Your task to perform on an android device: set default search engine in the chrome app Image 0: 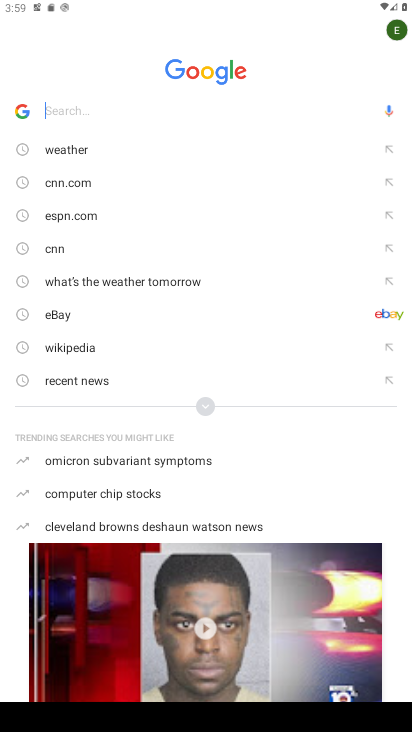
Step 0: press home button
Your task to perform on an android device: set default search engine in the chrome app Image 1: 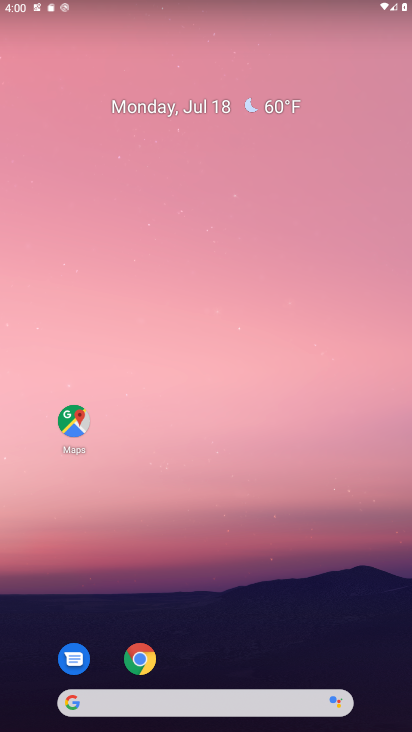
Step 1: drag from (327, 711) to (354, 200)
Your task to perform on an android device: set default search engine in the chrome app Image 2: 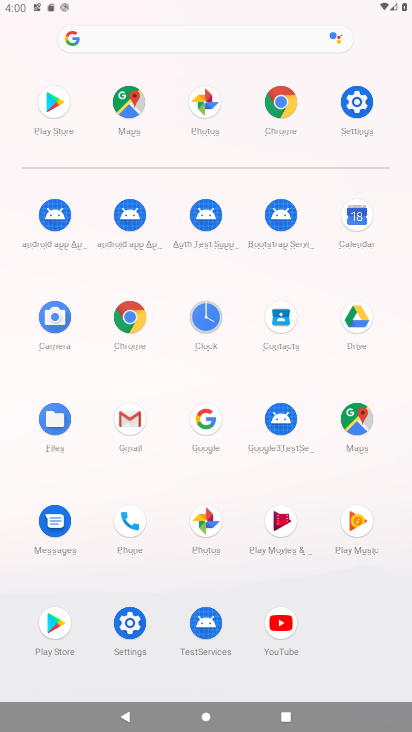
Step 2: click (125, 319)
Your task to perform on an android device: set default search engine in the chrome app Image 3: 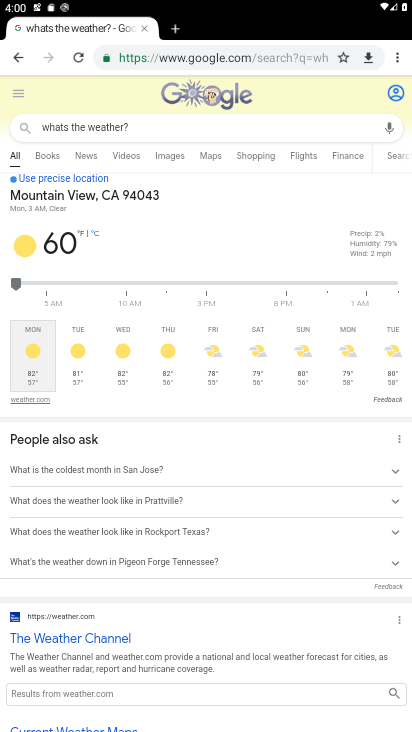
Step 3: drag from (392, 55) to (329, 346)
Your task to perform on an android device: set default search engine in the chrome app Image 4: 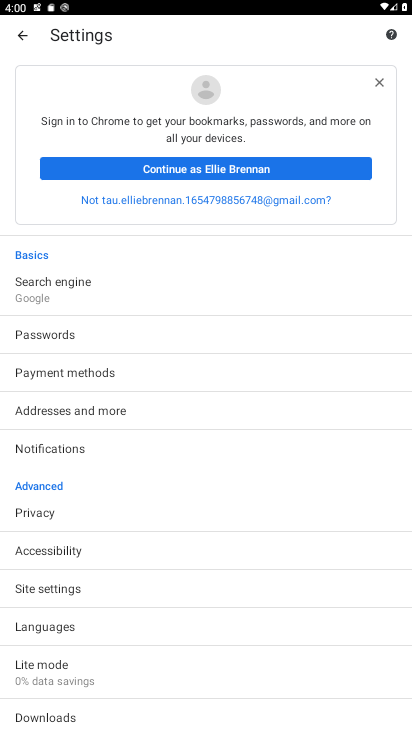
Step 4: click (87, 289)
Your task to perform on an android device: set default search engine in the chrome app Image 5: 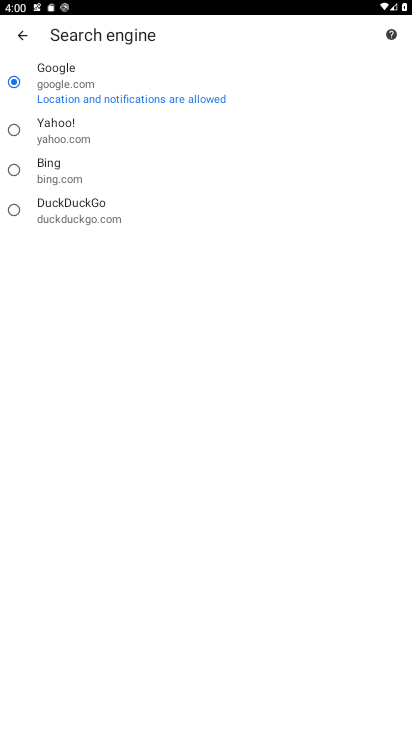
Step 5: task complete